Your task to perform on an android device: Go to Maps Image 0: 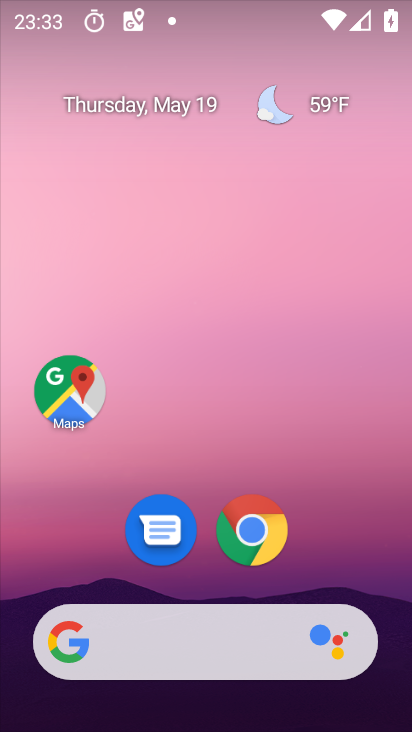
Step 0: drag from (360, 559) to (347, 139)
Your task to perform on an android device: Go to Maps Image 1: 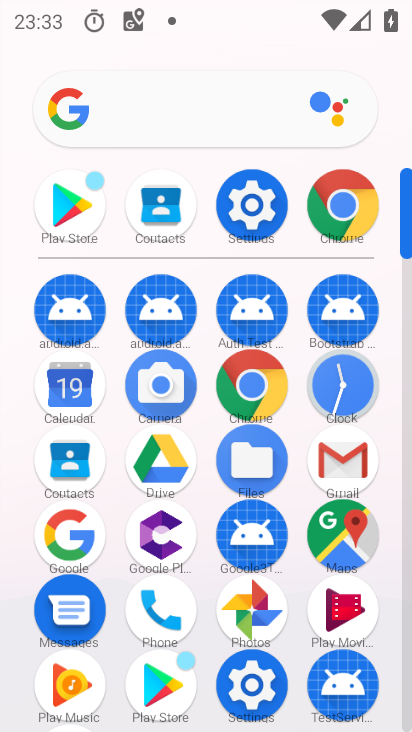
Step 1: click (337, 539)
Your task to perform on an android device: Go to Maps Image 2: 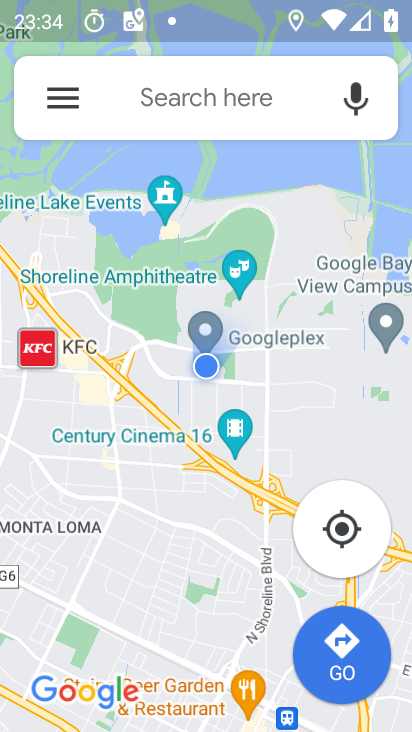
Step 2: task complete